Your task to perform on an android device: set the stopwatch Image 0: 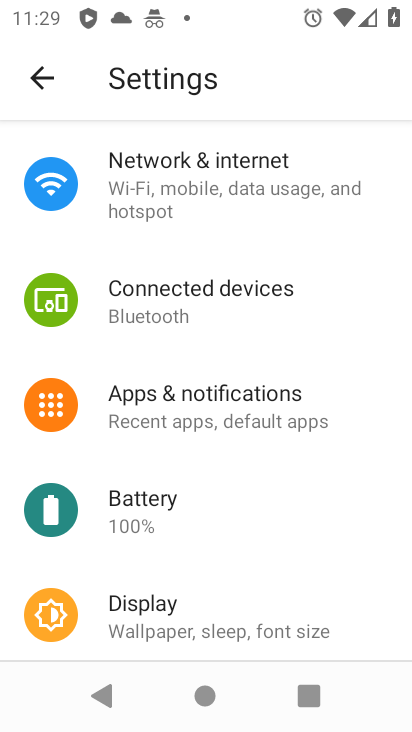
Step 0: press home button
Your task to perform on an android device: set the stopwatch Image 1: 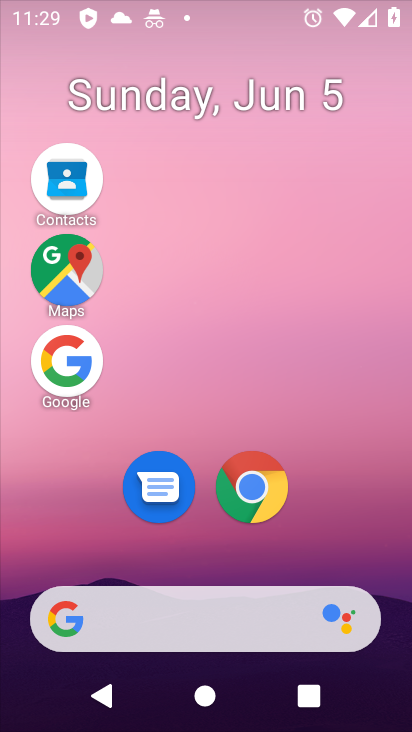
Step 1: drag from (185, 576) to (278, 36)
Your task to perform on an android device: set the stopwatch Image 2: 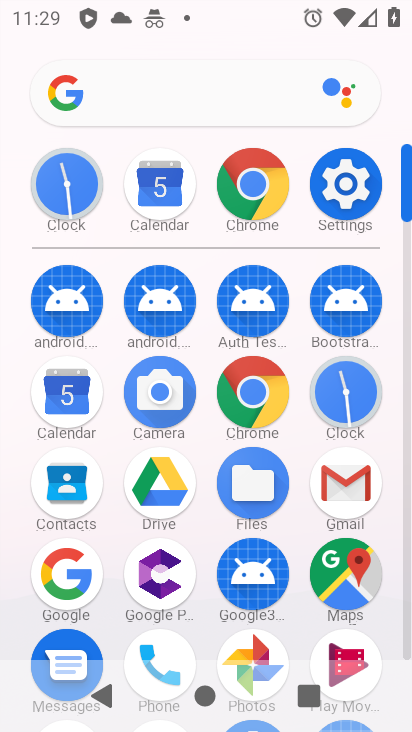
Step 2: click (360, 405)
Your task to perform on an android device: set the stopwatch Image 3: 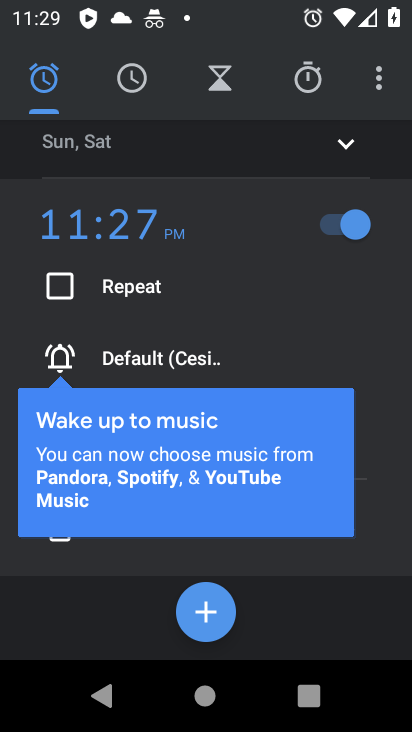
Step 3: click (310, 95)
Your task to perform on an android device: set the stopwatch Image 4: 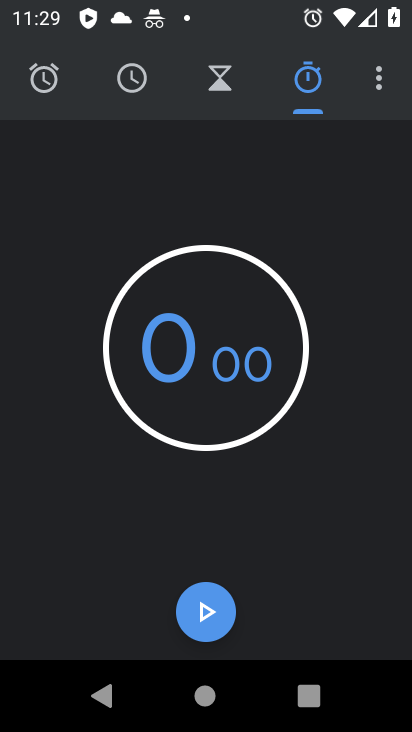
Step 4: click (216, 621)
Your task to perform on an android device: set the stopwatch Image 5: 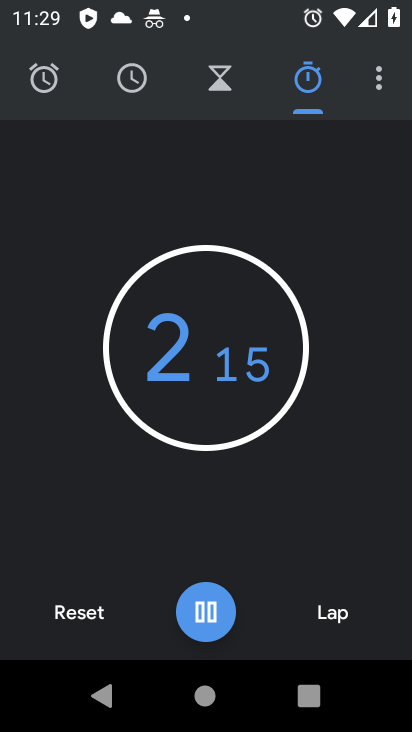
Step 5: task complete